Your task to perform on an android device: turn on notifications settings in the gmail app Image 0: 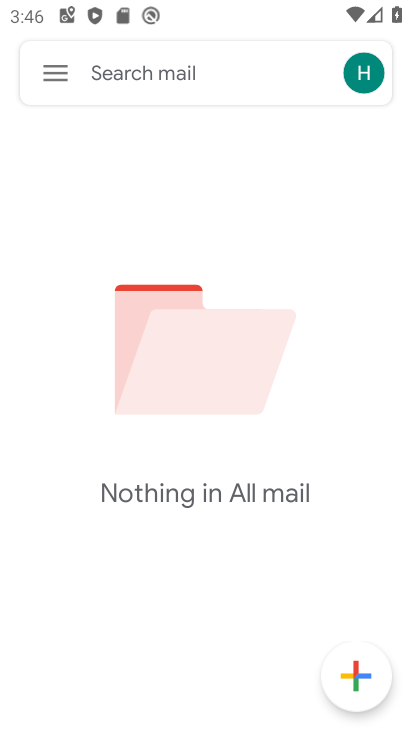
Step 0: click (44, 69)
Your task to perform on an android device: turn on notifications settings in the gmail app Image 1: 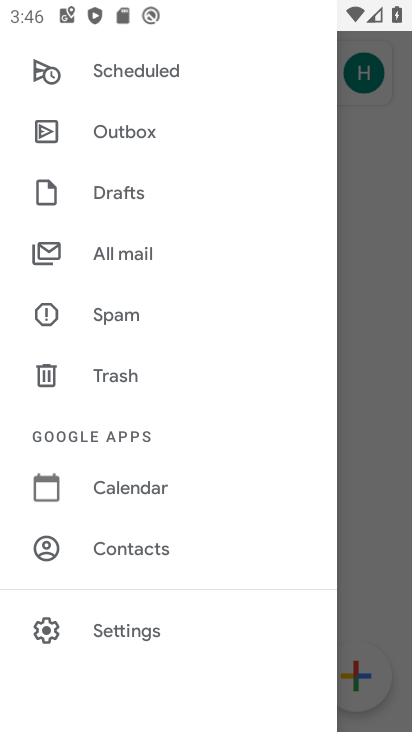
Step 1: click (138, 623)
Your task to perform on an android device: turn on notifications settings in the gmail app Image 2: 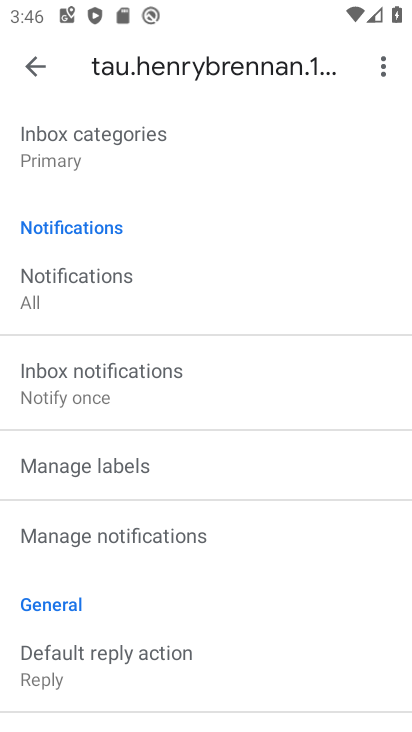
Step 2: click (172, 529)
Your task to perform on an android device: turn on notifications settings in the gmail app Image 3: 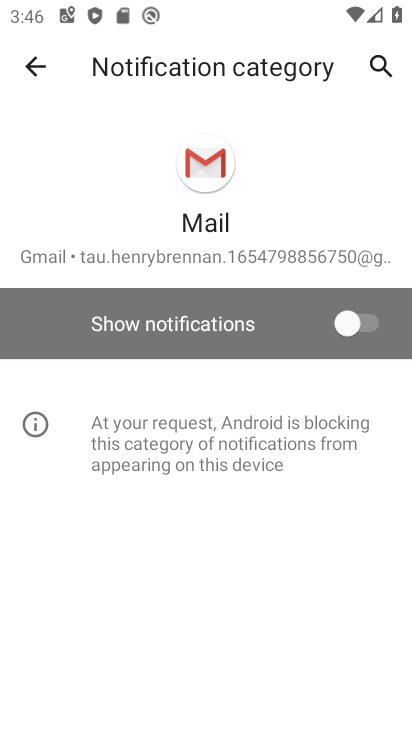
Step 3: click (372, 332)
Your task to perform on an android device: turn on notifications settings in the gmail app Image 4: 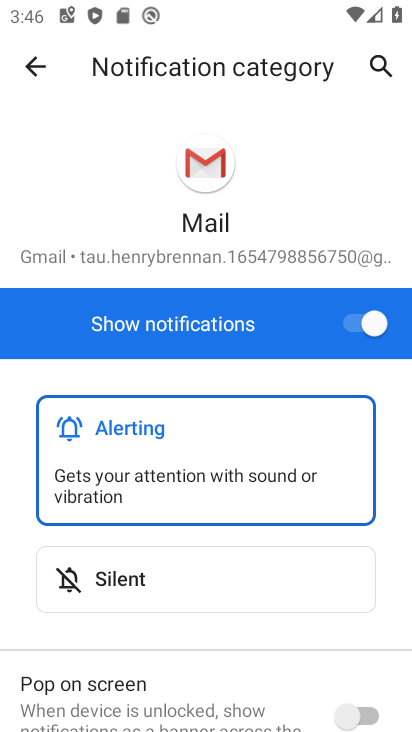
Step 4: task complete